Your task to perform on an android device: What's the weather going to be this weekend? Image 0: 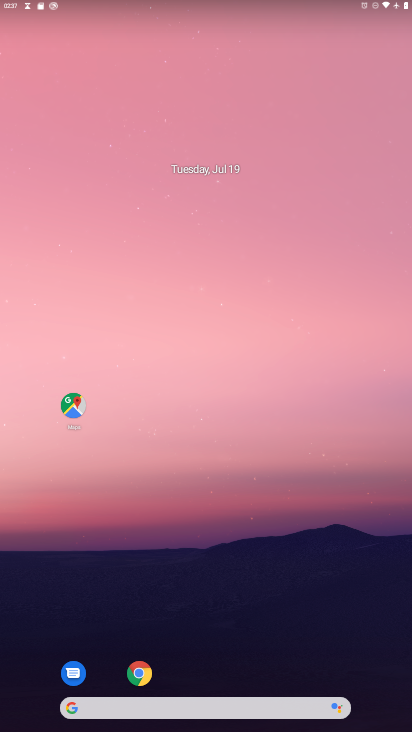
Step 0: drag from (265, 639) to (260, 252)
Your task to perform on an android device: What's the weather going to be this weekend? Image 1: 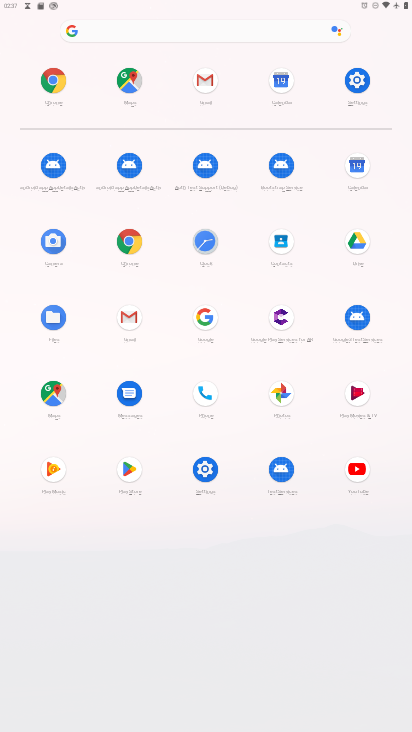
Step 1: click (354, 173)
Your task to perform on an android device: What's the weather going to be this weekend? Image 2: 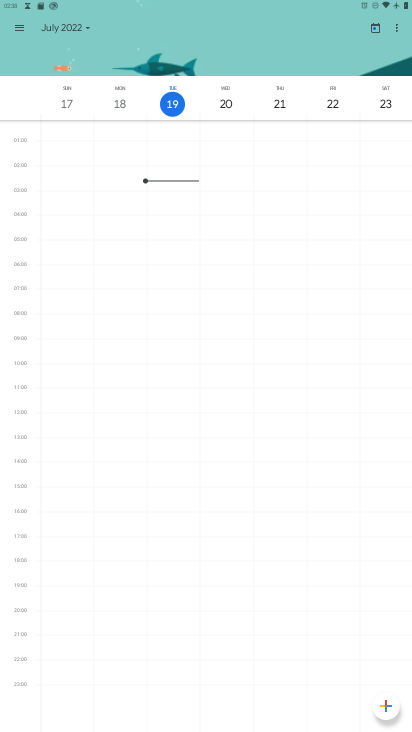
Step 2: task complete